Your task to perform on an android device: Open Chrome and go to settings Image 0: 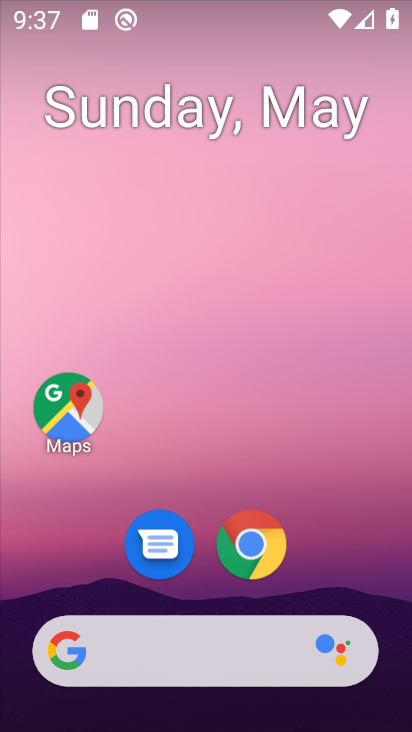
Step 0: drag from (358, 566) to (354, 407)
Your task to perform on an android device: Open Chrome and go to settings Image 1: 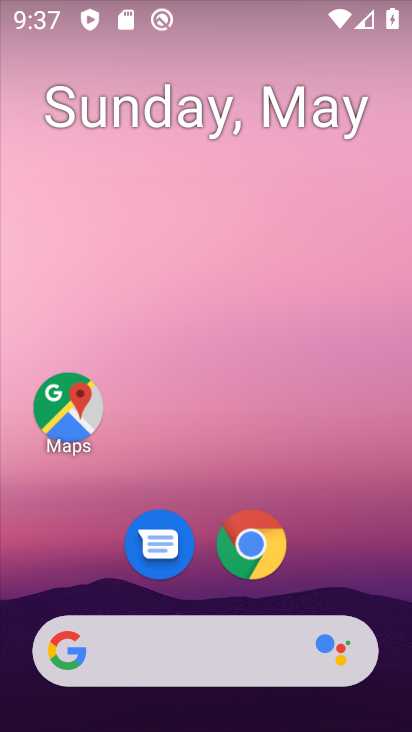
Step 1: drag from (309, 577) to (327, 51)
Your task to perform on an android device: Open Chrome and go to settings Image 2: 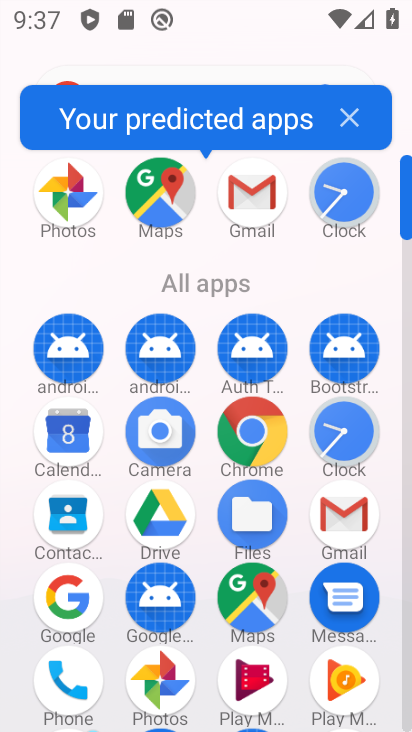
Step 2: click (249, 431)
Your task to perform on an android device: Open Chrome and go to settings Image 3: 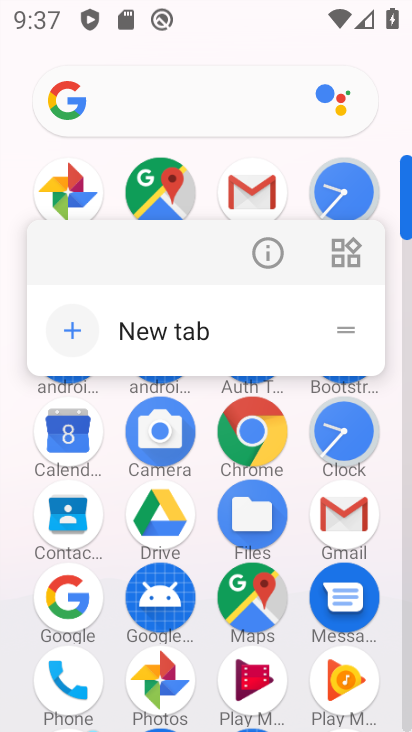
Step 3: click (246, 429)
Your task to perform on an android device: Open Chrome and go to settings Image 4: 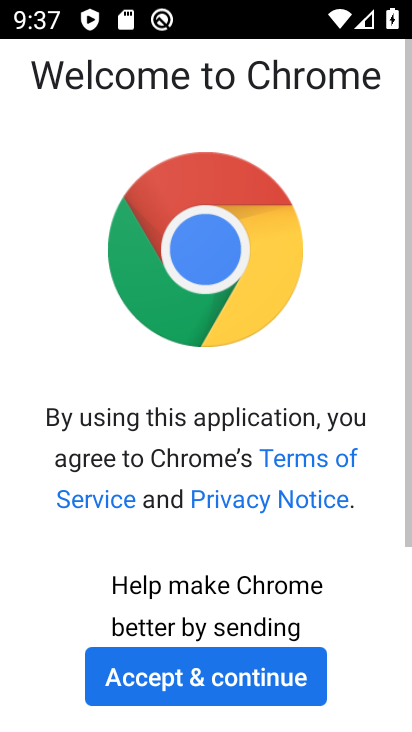
Step 4: click (221, 686)
Your task to perform on an android device: Open Chrome and go to settings Image 5: 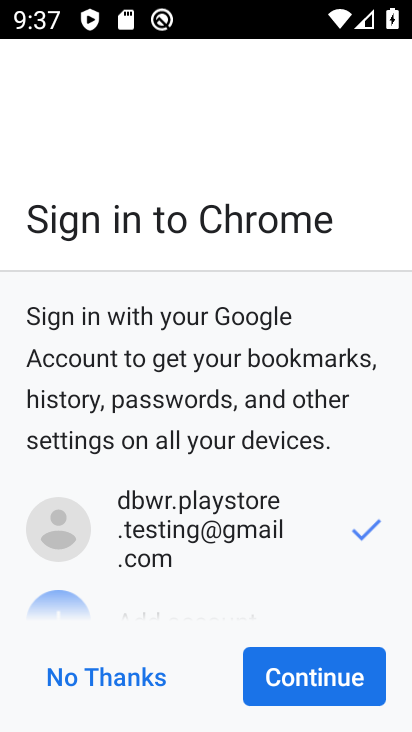
Step 5: click (373, 693)
Your task to perform on an android device: Open Chrome and go to settings Image 6: 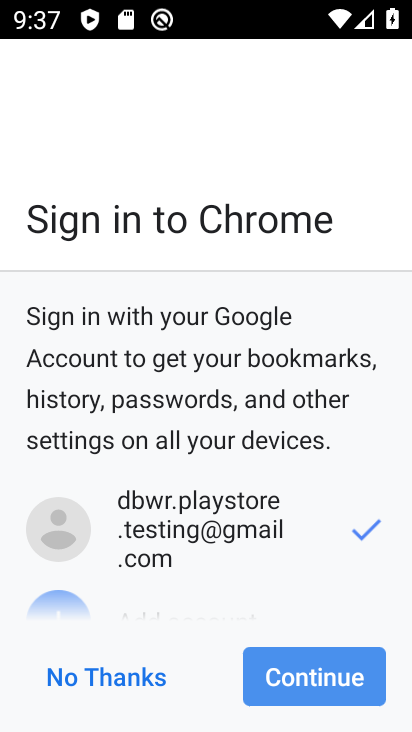
Step 6: click (373, 693)
Your task to perform on an android device: Open Chrome and go to settings Image 7: 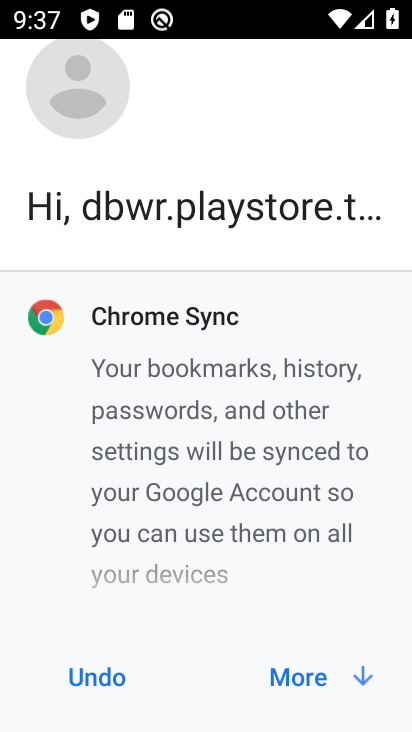
Step 7: click (373, 693)
Your task to perform on an android device: Open Chrome and go to settings Image 8: 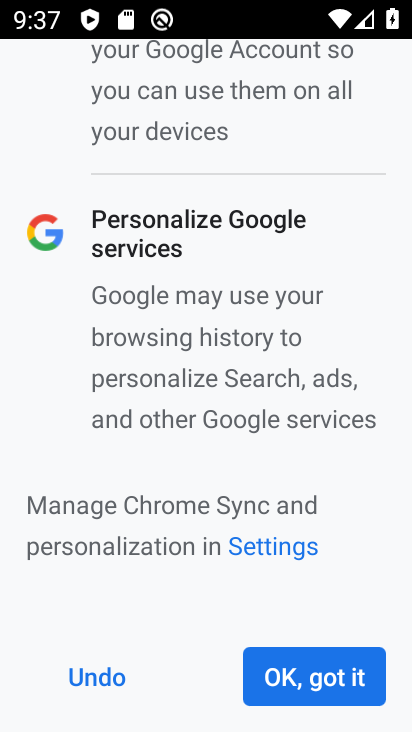
Step 8: click (305, 671)
Your task to perform on an android device: Open Chrome and go to settings Image 9: 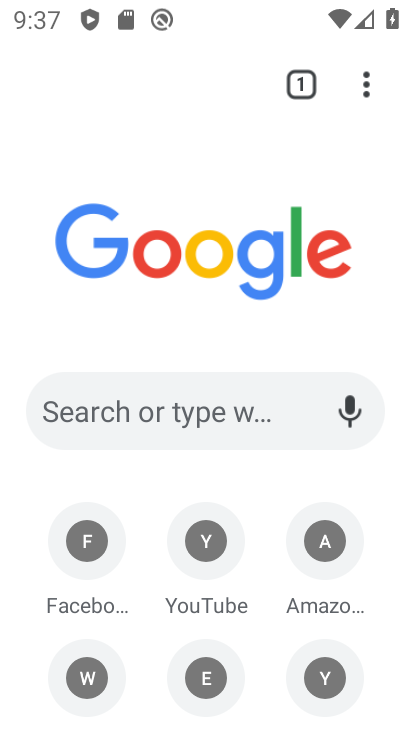
Step 9: task complete